Your task to perform on an android device: Is it going to rain today? Image 0: 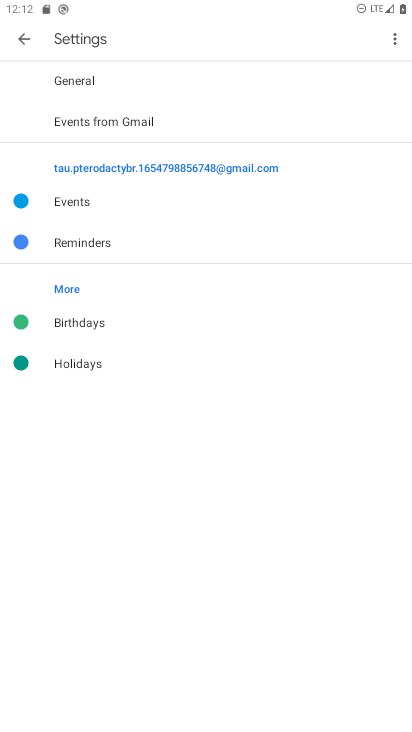
Step 0: task impossible